Your task to perform on an android device: Open Maps and search for coffee Image 0: 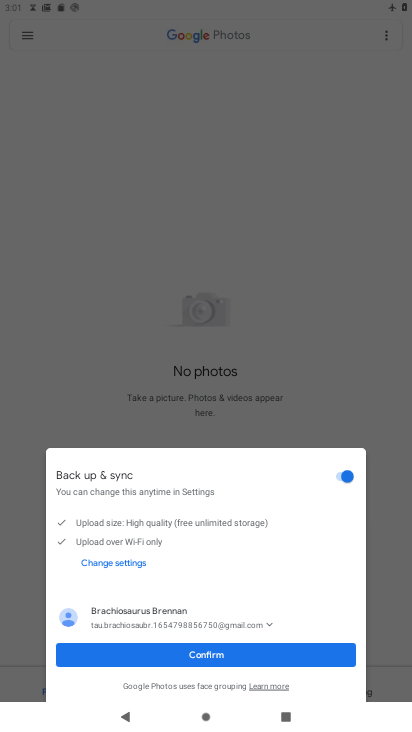
Step 0: press home button
Your task to perform on an android device: Open Maps and search for coffee Image 1: 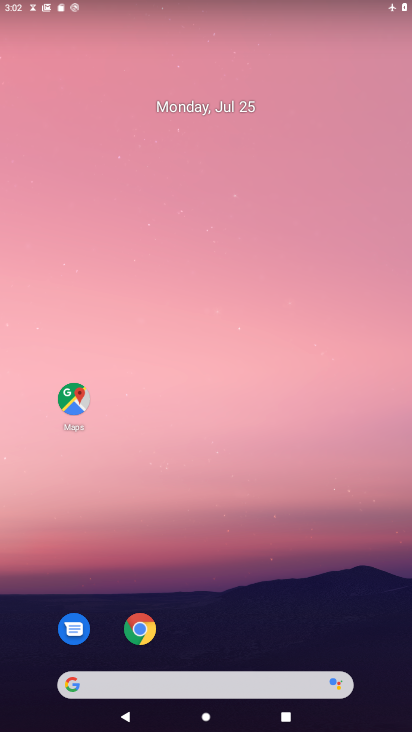
Step 1: drag from (288, 639) to (210, 77)
Your task to perform on an android device: Open Maps and search for coffee Image 2: 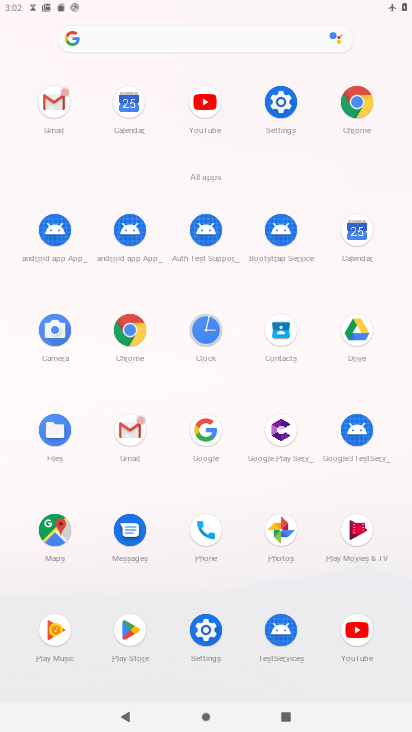
Step 2: click (55, 542)
Your task to perform on an android device: Open Maps and search for coffee Image 3: 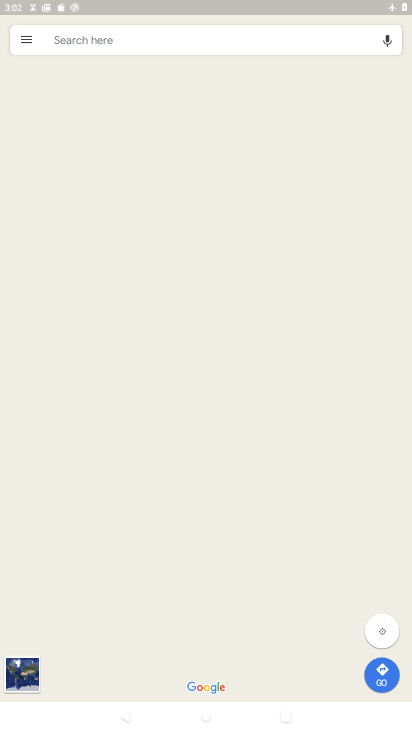
Step 3: click (169, 43)
Your task to perform on an android device: Open Maps and search for coffee Image 4: 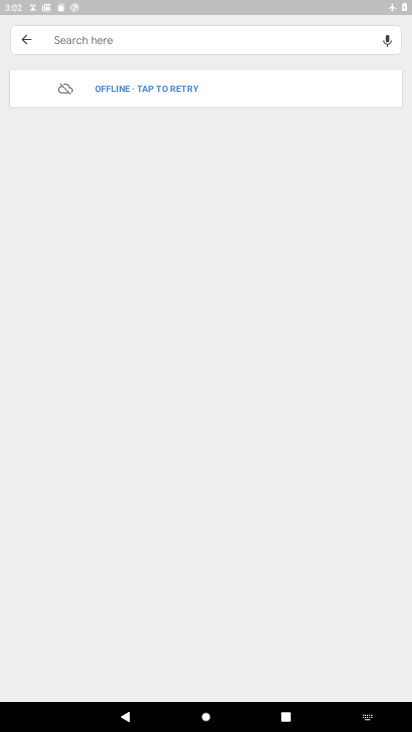
Step 4: type "coffee"
Your task to perform on an android device: Open Maps and search for coffee Image 5: 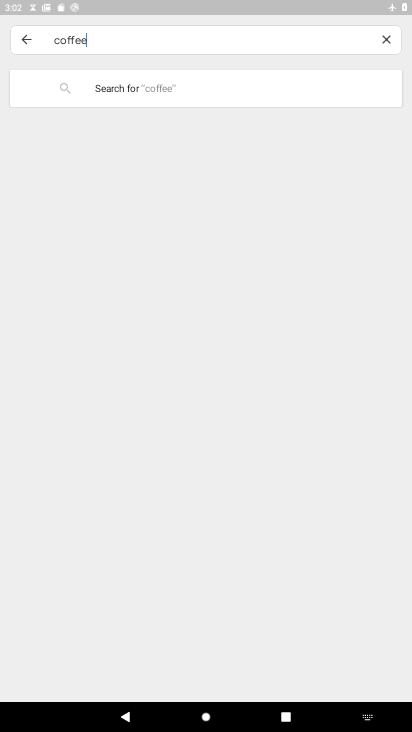
Step 5: click (215, 94)
Your task to perform on an android device: Open Maps and search for coffee Image 6: 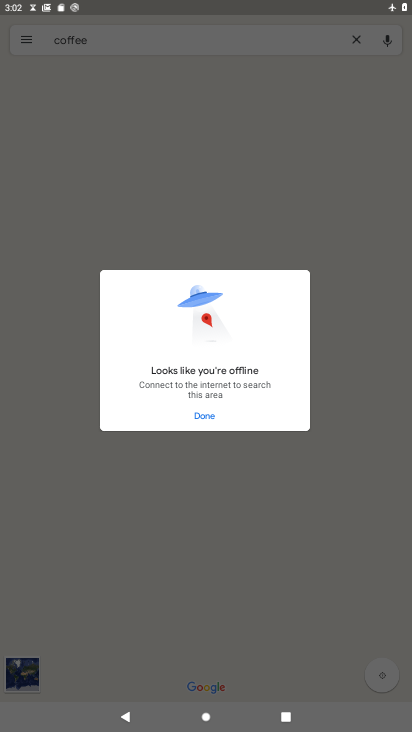
Step 6: task complete